Your task to perform on an android device: turn off notifications settings in the gmail app Image 0: 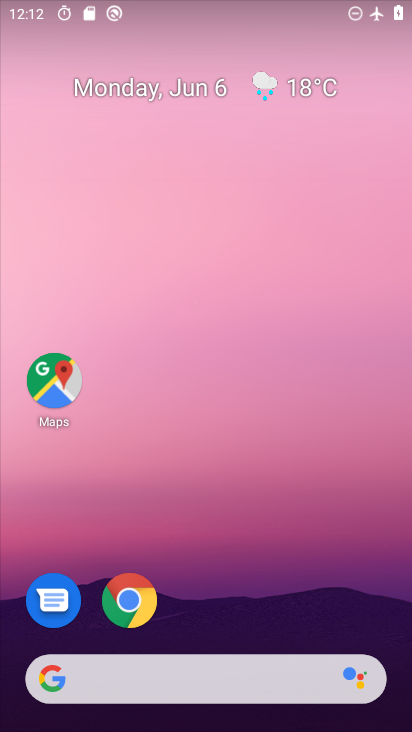
Step 0: drag from (198, 609) to (240, 128)
Your task to perform on an android device: turn off notifications settings in the gmail app Image 1: 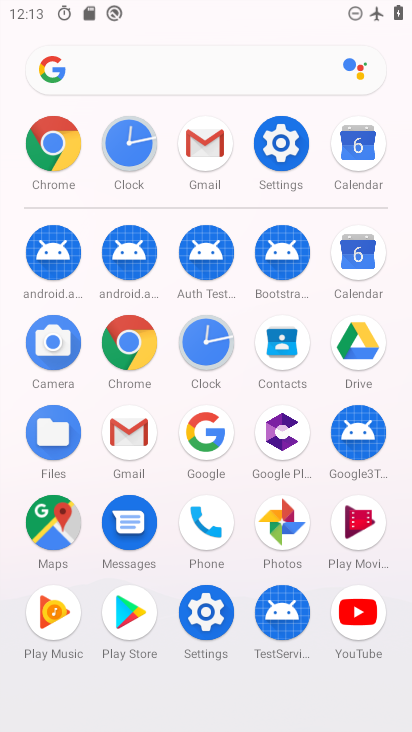
Step 1: click (120, 436)
Your task to perform on an android device: turn off notifications settings in the gmail app Image 2: 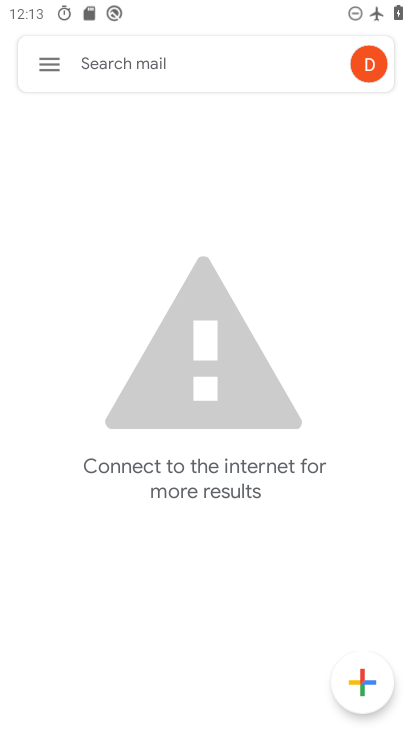
Step 2: click (43, 58)
Your task to perform on an android device: turn off notifications settings in the gmail app Image 3: 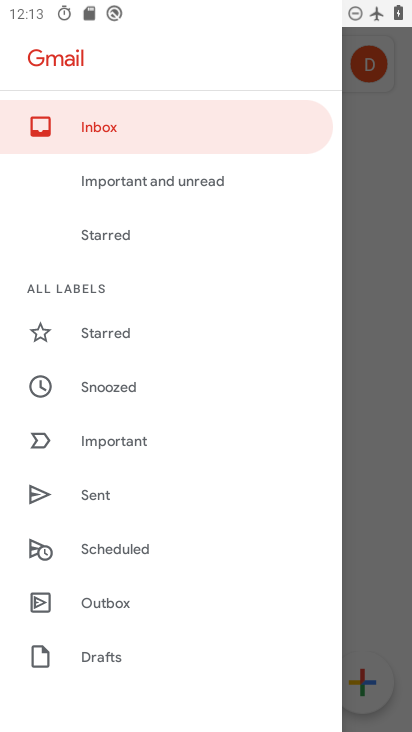
Step 3: drag from (168, 650) to (207, 316)
Your task to perform on an android device: turn off notifications settings in the gmail app Image 4: 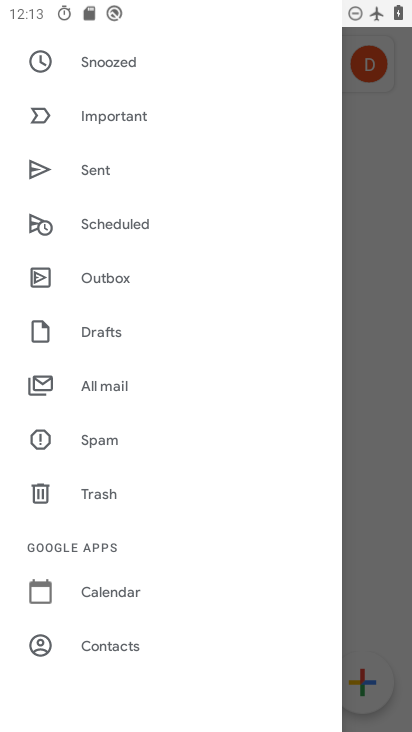
Step 4: drag from (153, 589) to (202, 256)
Your task to perform on an android device: turn off notifications settings in the gmail app Image 5: 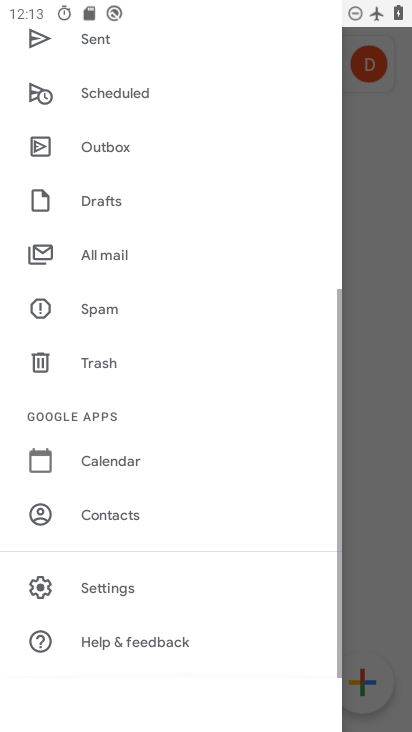
Step 5: click (86, 594)
Your task to perform on an android device: turn off notifications settings in the gmail app Image 6: 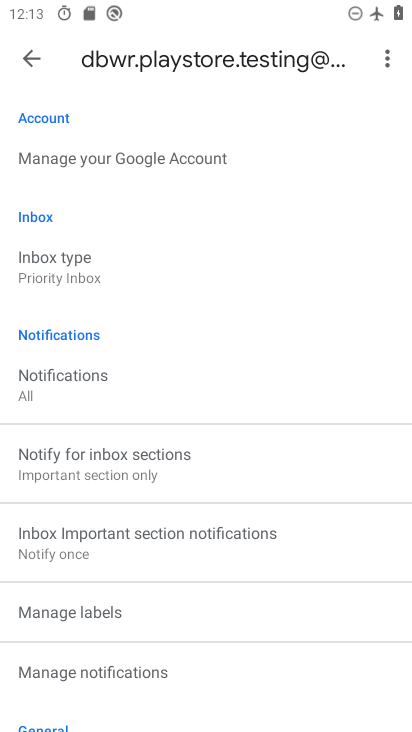
Step 6: drag from (194, 640) to (236, 433)
Your task to perform on an android device: turn off notifications settings in the gmail app Image 7: 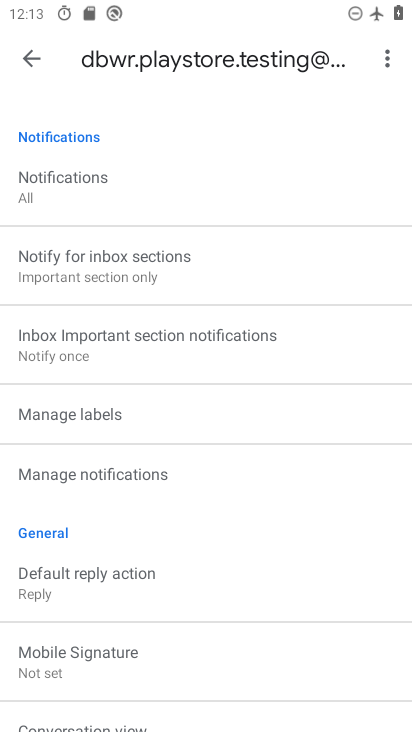
Step 7: click (210, 465)
Your task to perform on an android device: turn off notifications settings in the gmail app Image 8: 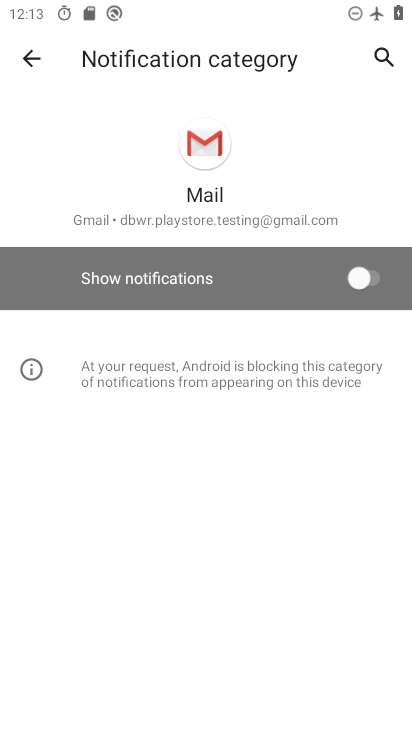
Step 8: task complete